Your task to perform on an android device: Go to Wikipedia Image 0: 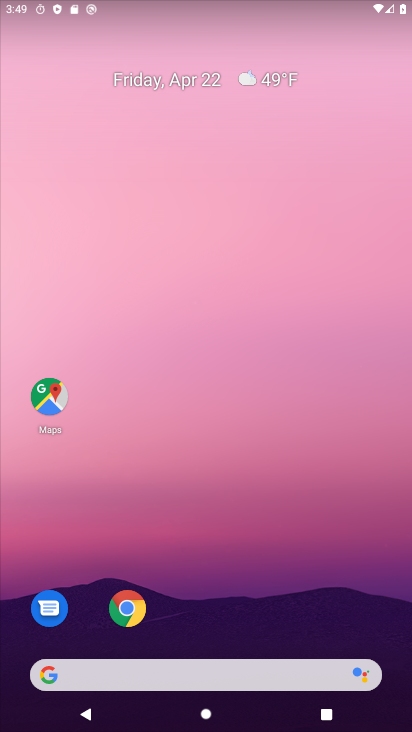
Step 0: click (130, 610)
Your task to perform on an android device: Go to Wikipedia Image 1: 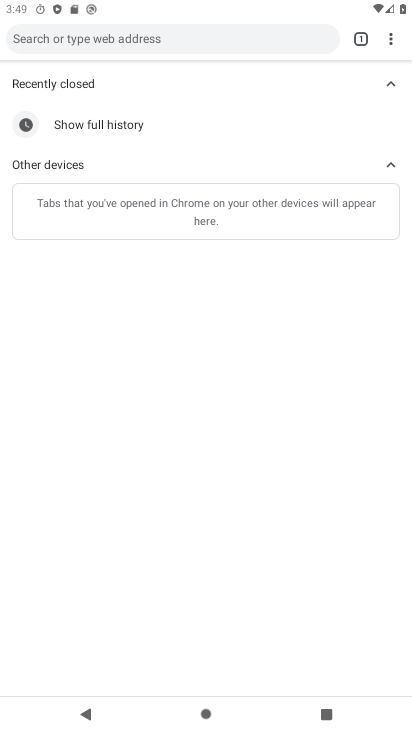
Step 1: click (362, 40)
Your task to perform on an android device: Go to Wikipedia Image 2: 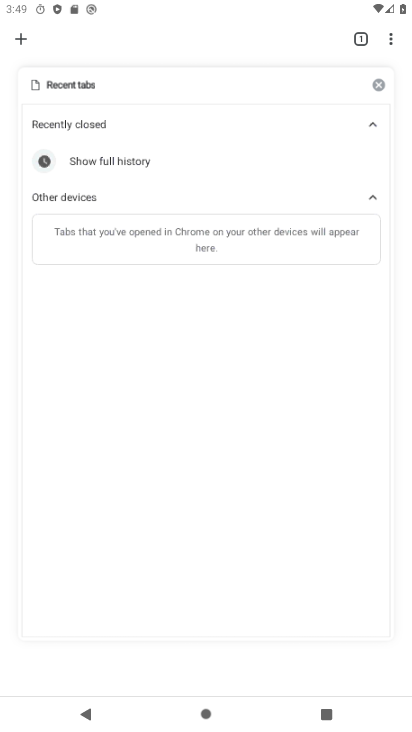
Step 2: click (18, 44)
Your task to perform on an android device: Go to Wikipedia Image 3: 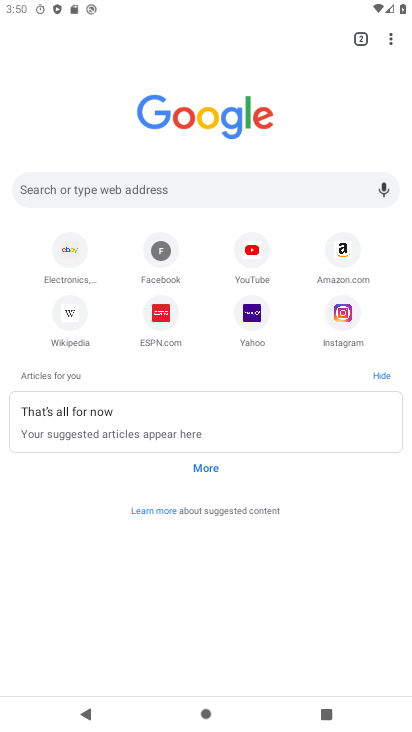
Step 3: click (69, 314)
Your task to perform on an android device: Go to Wikipedia Image 4: 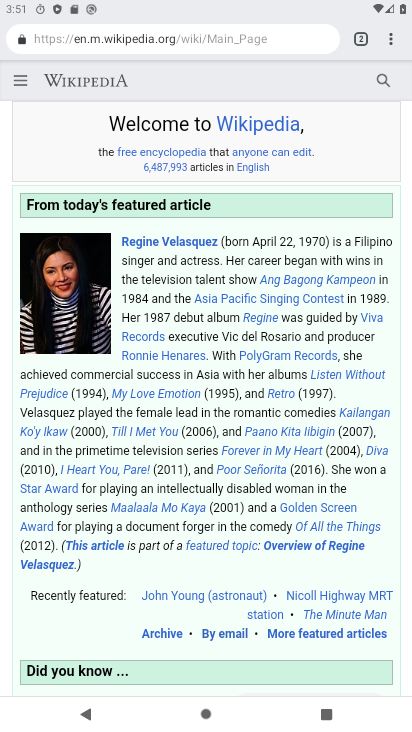
Step 4: task complete